Your task to perform on an android device: Open calendar and show me the first week of next month Image 0: 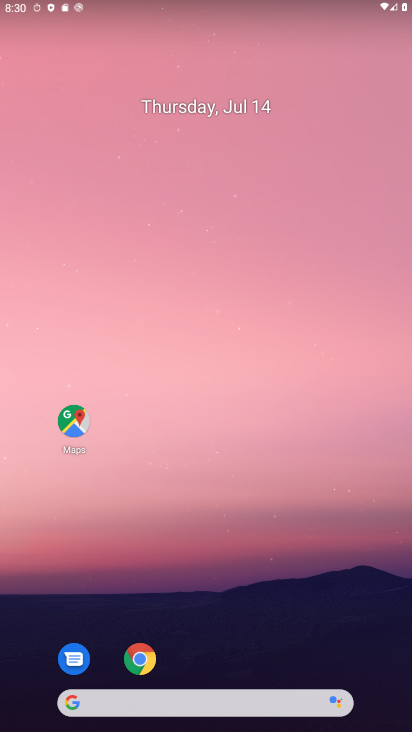
Step 0: drag from (276, 665) to (183, 93)
Your task to perform on an android device: Open calendar and show me the first week of next month Image 1: 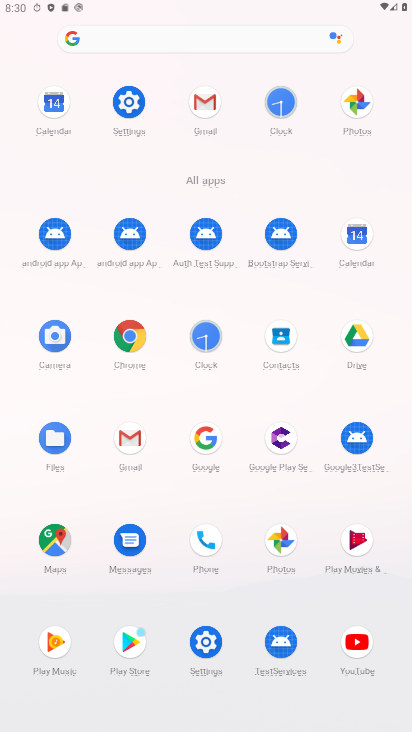
Step 1: click (343, 237)
Your task to perform on an android device: Open calendar and show me the first week of next month Image 2: 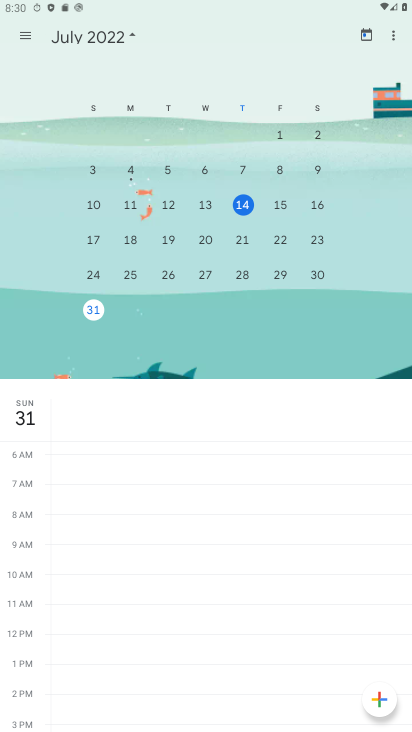
Step 2: click (27, 36)
Your task to perform on an android device: Open calendar and show me the first week of next month Image 3: 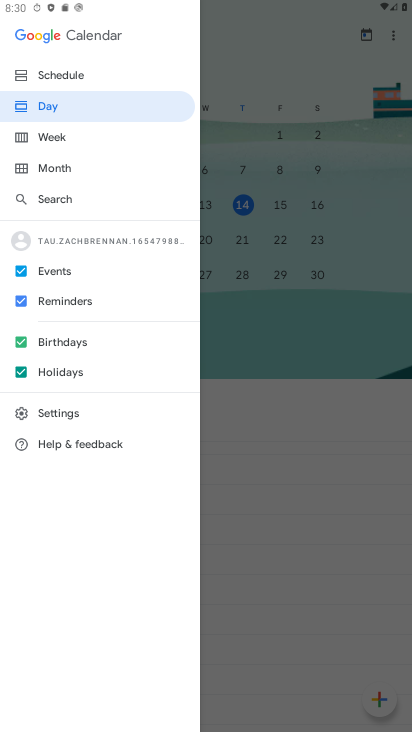
Step 3: click (72, 143)
Your task to perform on an android device: Open calendar and show me the first week of next month Image 4: 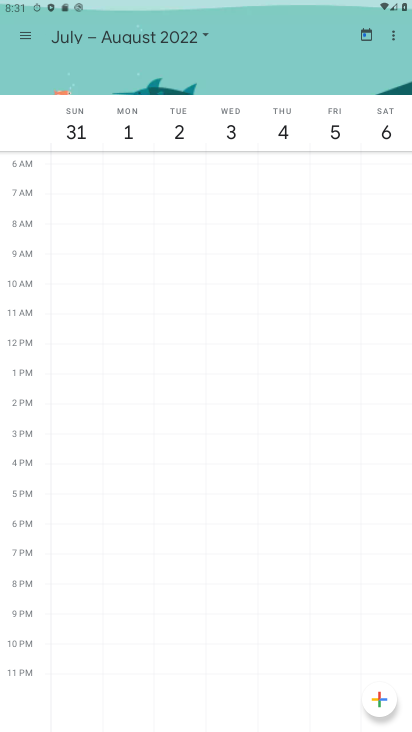
Step 4: task complete